Your task to perform on an android device: open a new tab in the chrome app Image 0: 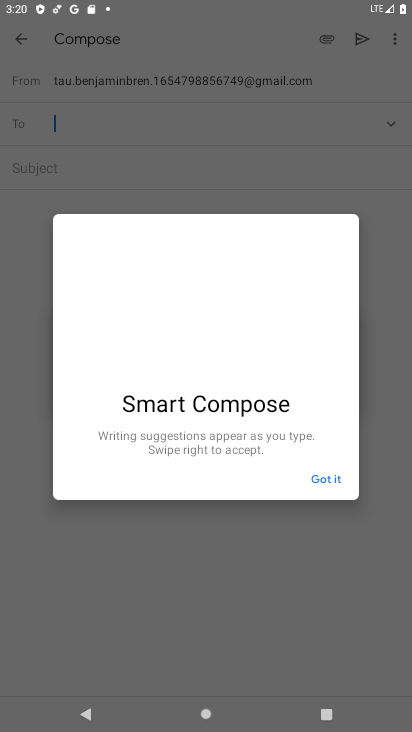
Step 0: press home button
Your task to perform on an android device: open a new tab in the chrome app Image 1: 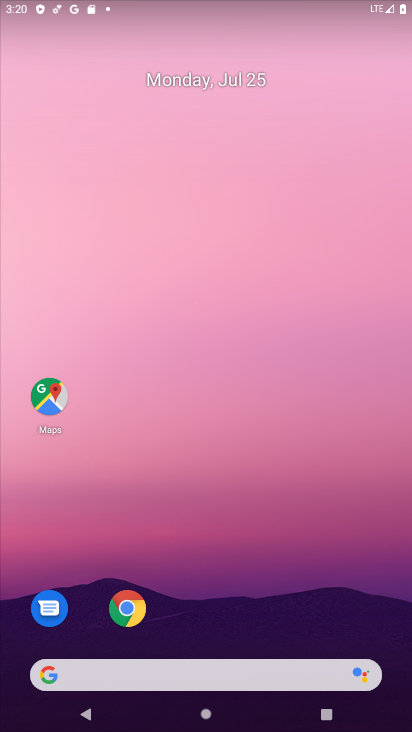
Step 1: click (130, 607)
Your task to perform on an android device: open a new tab in the chrome app Image 2: 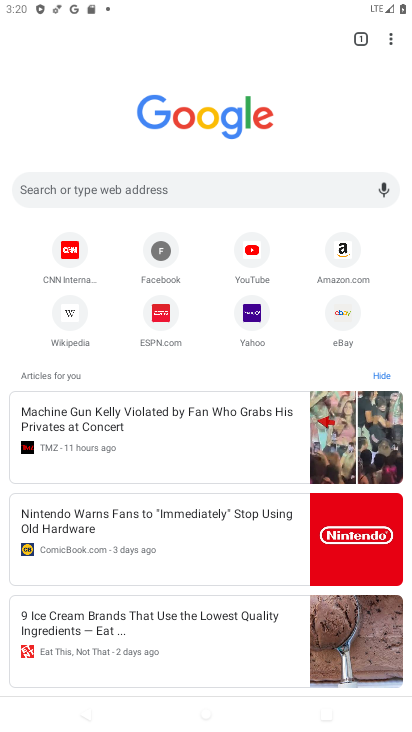
Step 2: click (359, 43)
Your task to perform on an android device: open a new tab in the chrome app Image 3: 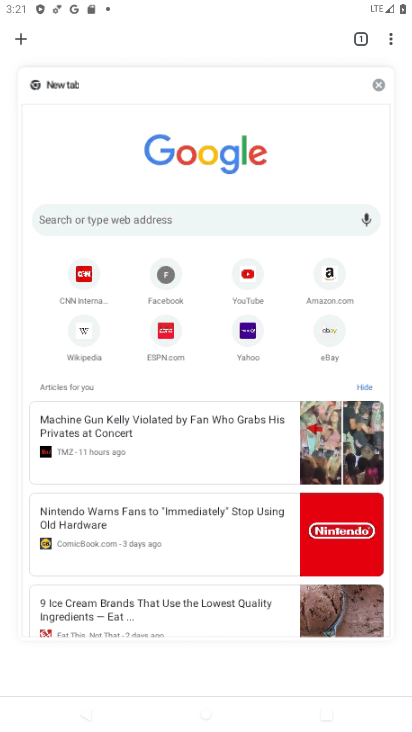
Step 3: click (13, 38)
Your task to perform on an android device: open a new tab in the chrome app Image 4: 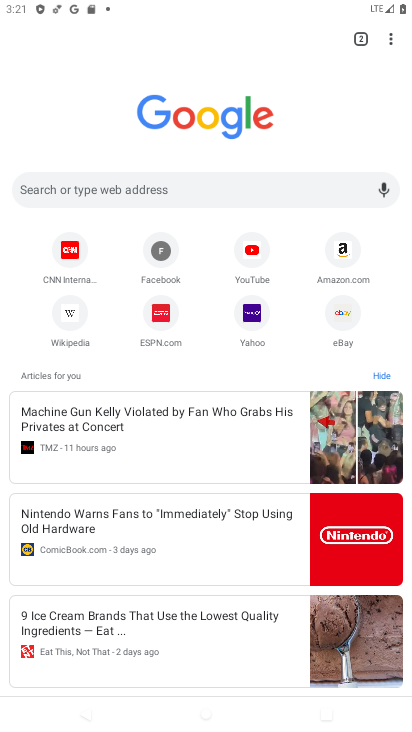
Step 4: task complete